Your task to perform on an android device: install app "Microsoft Excel" Image 0: 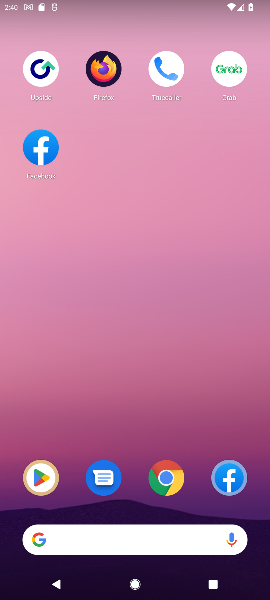
Step 0: press home button
Your task to perform on an android device: install app "Microsoft Excel" Image 1: 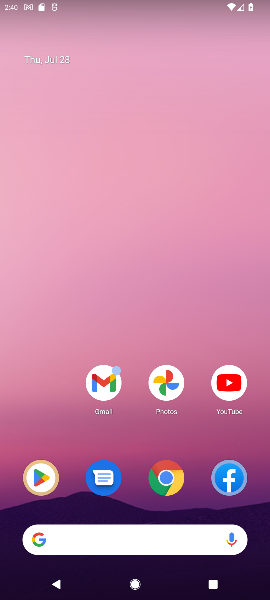
Step 1: click (44, 482)
Your task to perform on an android device: install app "Microsoft Excel" Image 2: 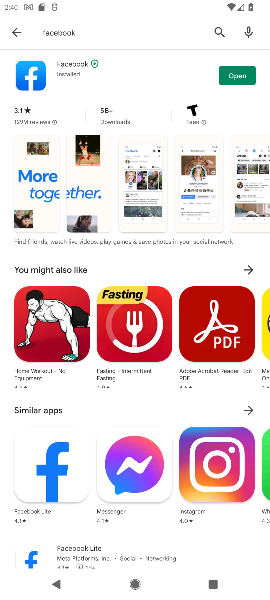
Step 2: click (174, 34)
Your task to perform on an android device: install app "Microsoft Excel" Image 3: 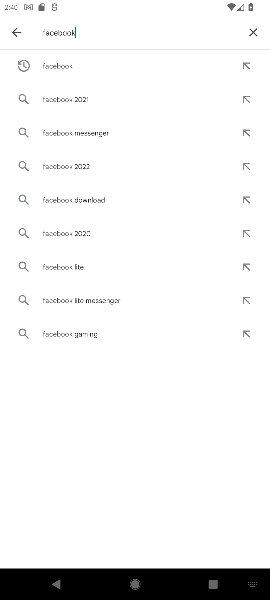
Step 3: click (250, 29)
Your task to perform on an android device: install app "Microsoft Excel" Image 4: 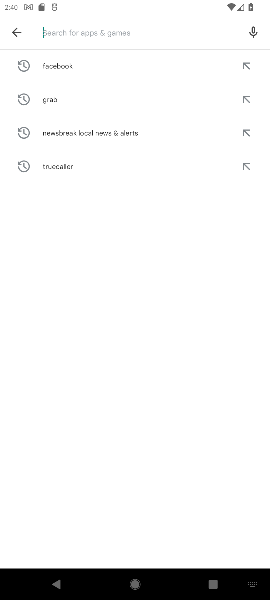
Step 4: type "Microsoft Excel"
Your task to perform on an android device: install app "Microsoft Excel" Image 5: 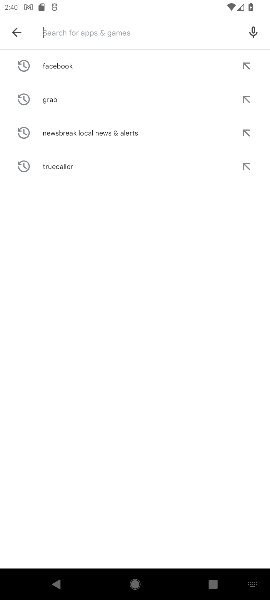
Step 5: click (89, 28)
Your task to perform on an android device: install app "Microsoft Excel" Image 6: 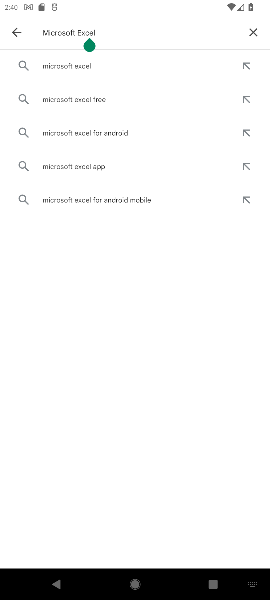
Step 6: click (75, 66)
Your task to perform on an android device: install app "Microsoft Excel" Image 7: 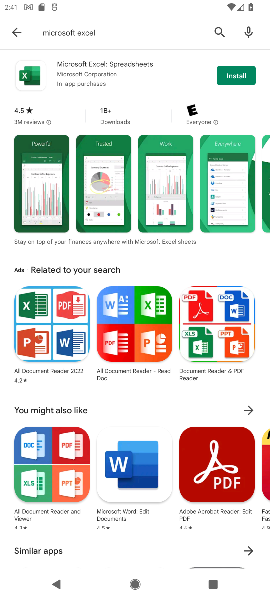
Step 7: click (234, 76)
Your task to perform on an android device: install app "Microsoft Excel" Image 8: 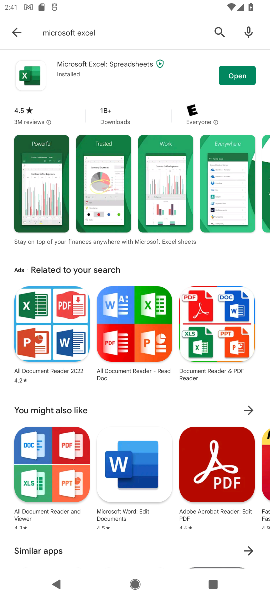
Step 8: task complete